Your task to perform on an android device: star an email in the gmail app Image 0: 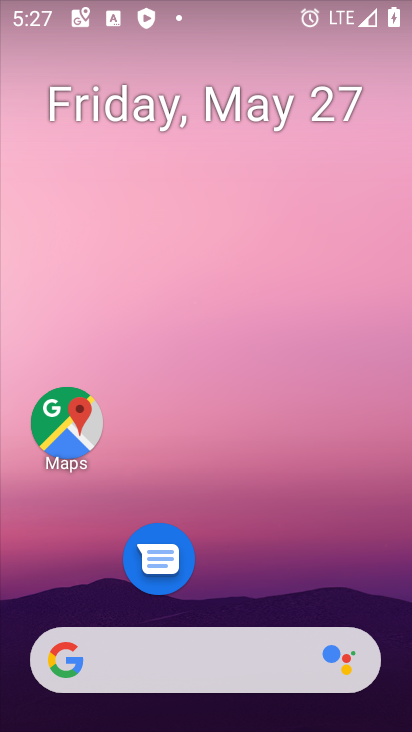
Step 0: drag from (214, 632) to (356, 0)
Your task to perform on an android device: star an email in the gmail app Image 1: 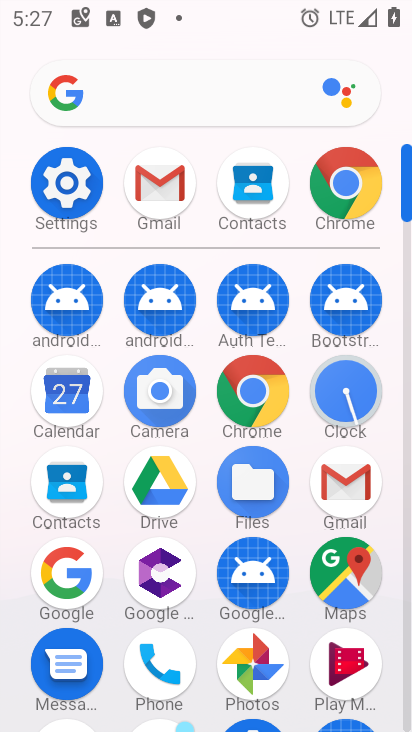
Step 1: click (344, 480)
Your task to perform on an android device: star an email in the gmail app Image 2: 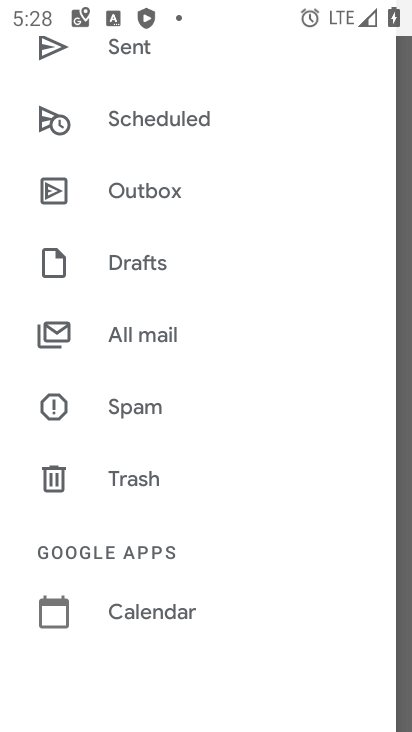
Step 2: drag from (168, 236) to (195, 637)
Your task to perform on an android device: star an email in the gmail app Image 3: 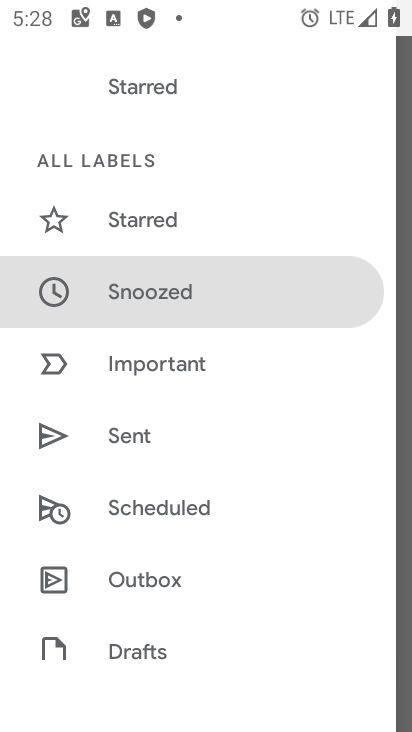
Step 3: click (180, 238)
Your task to perform on an android device: star an email in the gmail app Image 4: 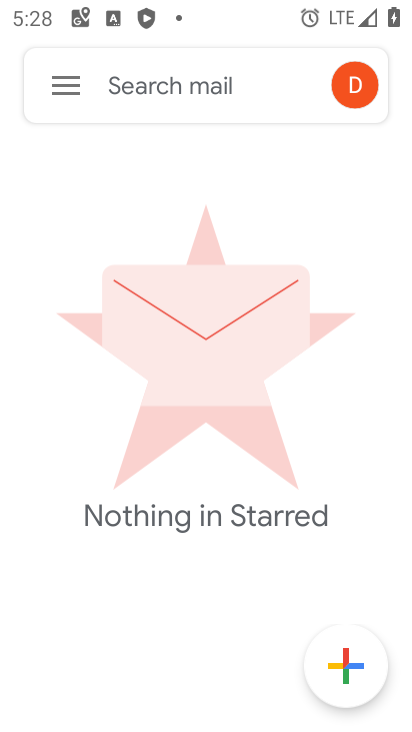
Step 4: task complete